Your task to perform on an android device: find which apps use the phone's location Image 0: 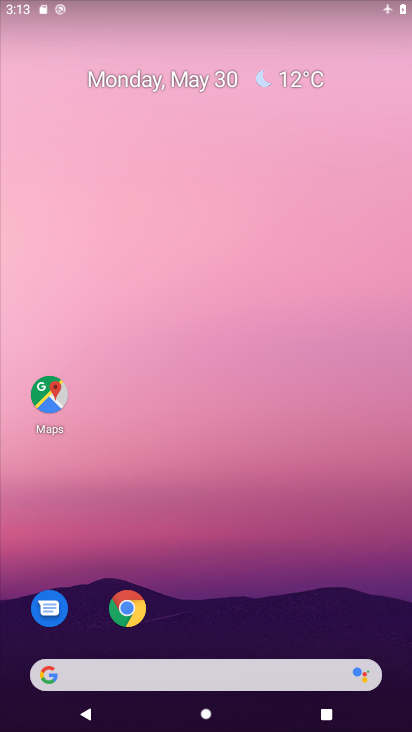
Step 0: drag from (307, 593) to (278, 7)
Your task to perform on an android device: find which apps use the phone's location Image 1: 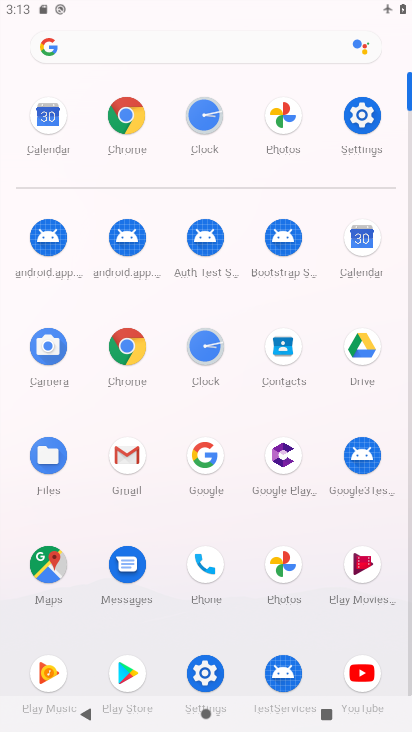
Step 1: click (358, 117)
Your task to perform on an android device: find which apps use the phone's location Image 2: 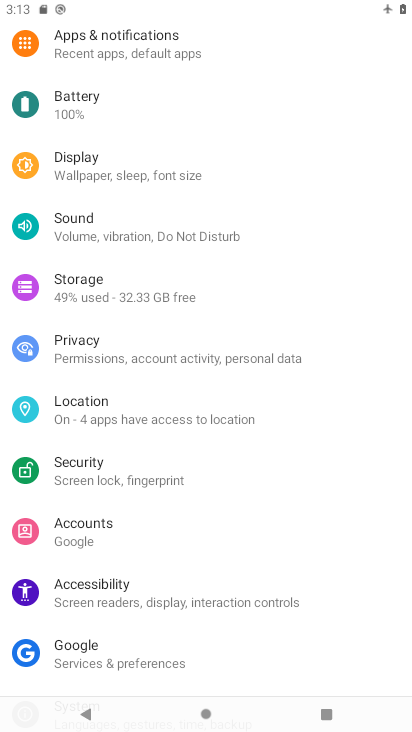
Step 2: click (138, 405)
Your task to perform on an android device: find which apps use the phone's location Image 3: 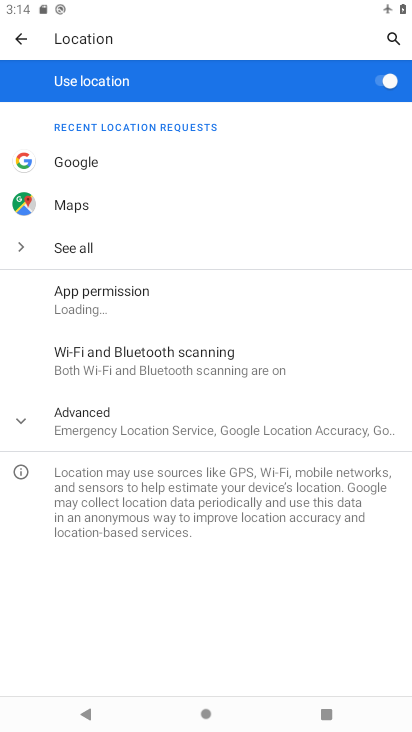
Step 3: click (206, 293)
Your task to perform on an android device: find which apps use the phone's location Image 4: 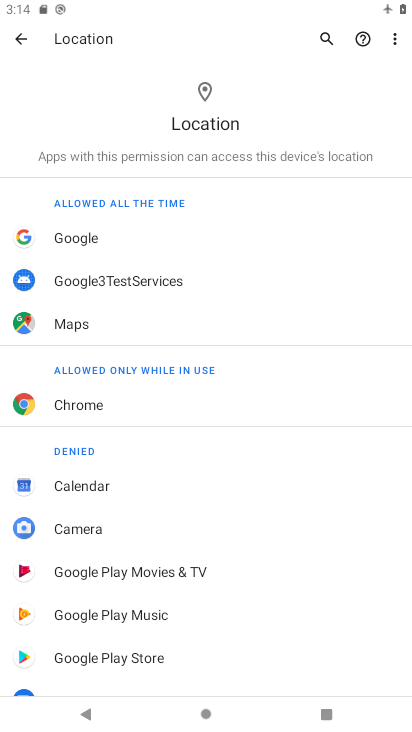
Step 4: task complete